Your task to perform on an android device: Turn off the flashlight Image 0: 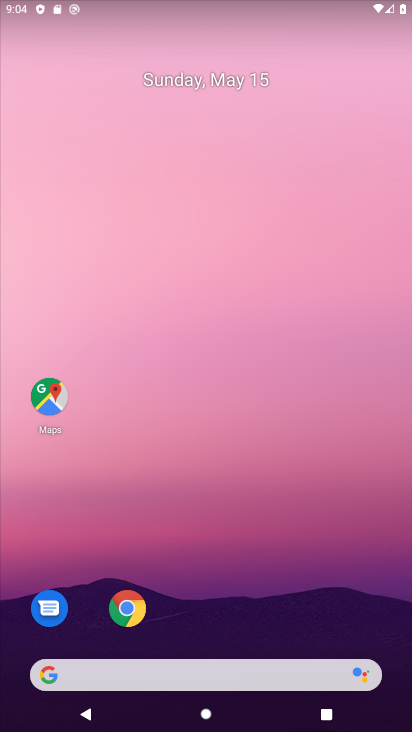
Step 0: drag from (287, 473) to (54, 216)
Your task to perform on an android device: Turn off the flashlight Image 1: 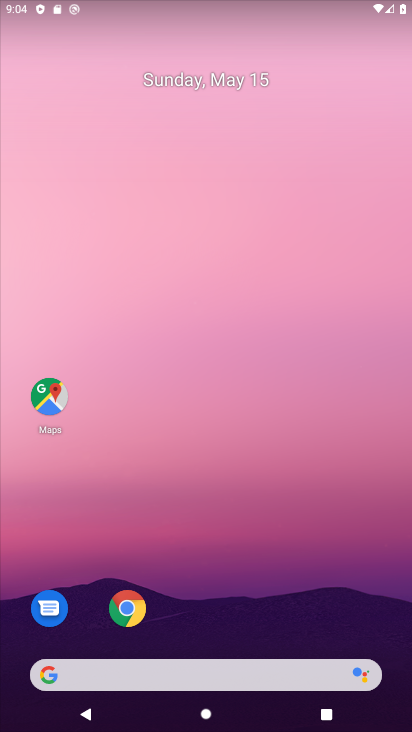
Step 1: drag from (282, 479) to (141, 349)
Your task to perform on an android device: Turn off the flashlight Image 2: 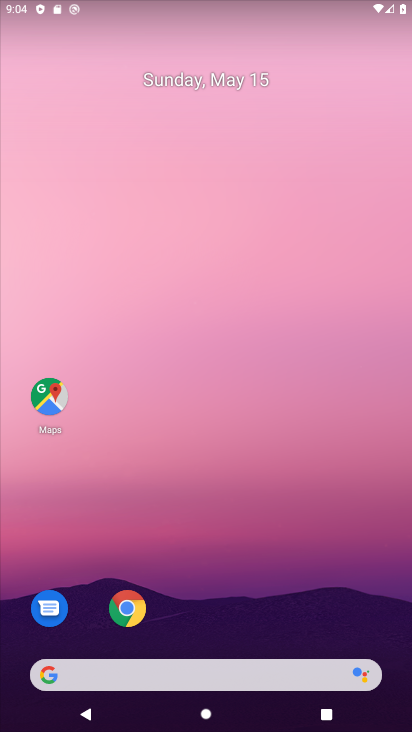
Step 2: drag from (284, 507) to (163, 68)
Your task to perform on an android device: Turn off the flashlight Image 3: 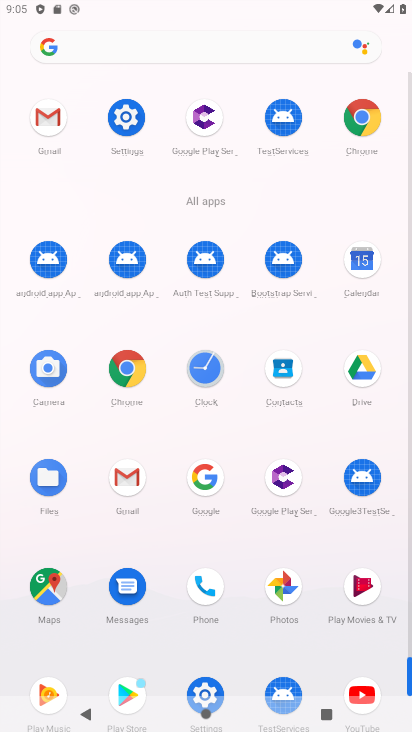
Step 3: click (143, 126)
Your task to perform on an android device: Turn off the flashlight Image 4: 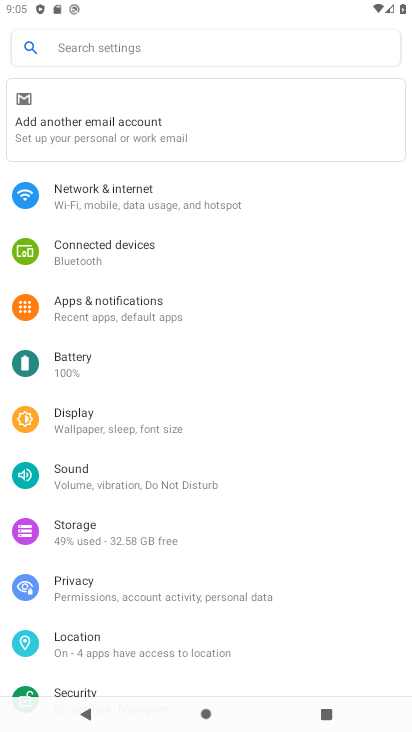
Step 4: task complete